Your task to perform on an android device: Open Amazon Image 0: 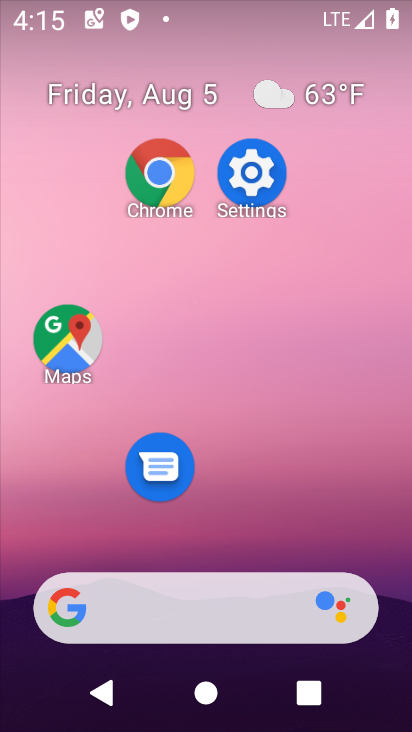
Step 0: click (159, 169)
Your task to perform on an android device: Open Amazon Image 1: 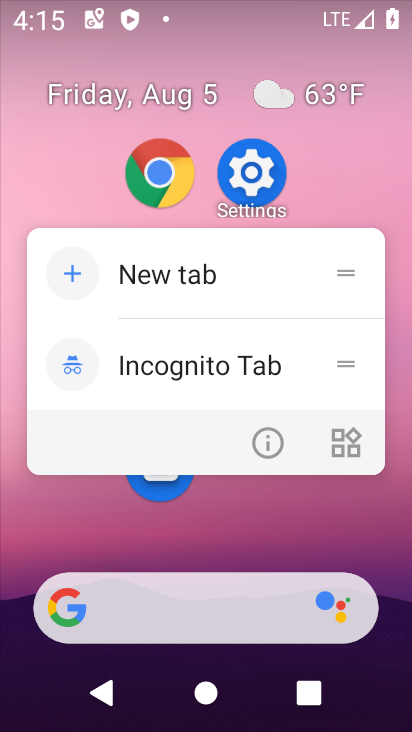
Step 1: click (171, 172)
Your task to perform on an android device: Open Amazon Image 2: 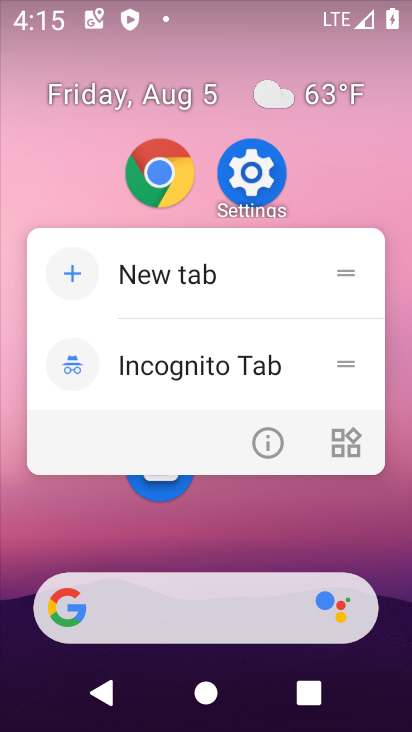
Step 2: click (301, 530)
Your task to perform on an android device: Open Amazon Image 3: 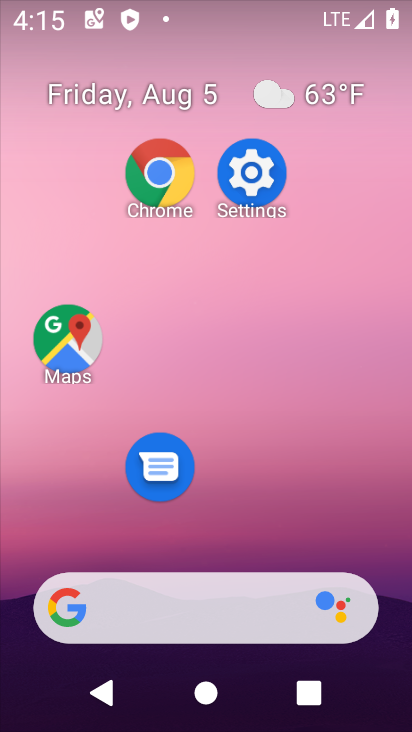
Step 3: drag from (301, 524) to (380, 47)
Your task to perform on an android device: Open Amazon Image 4: 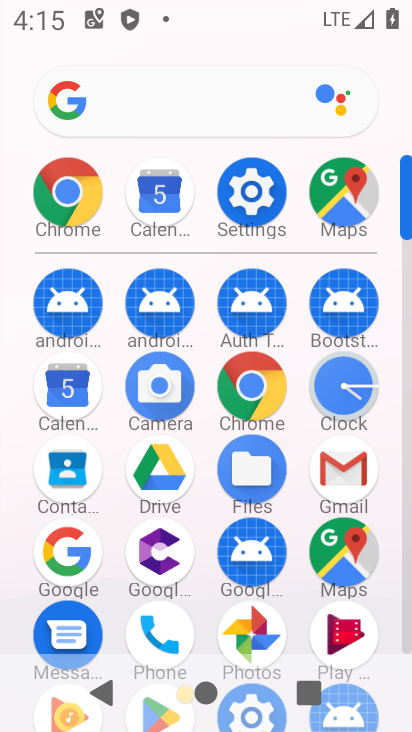
Step 4: click (237, 387)
Your task to perform on an android device: Open Amazon Image 5: 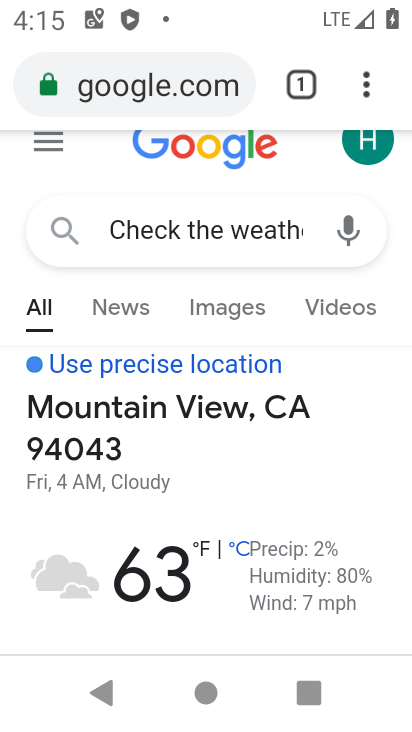
Step 5: click (137, 307)
Your task to perform on an android device: Open Amazon Image 6: 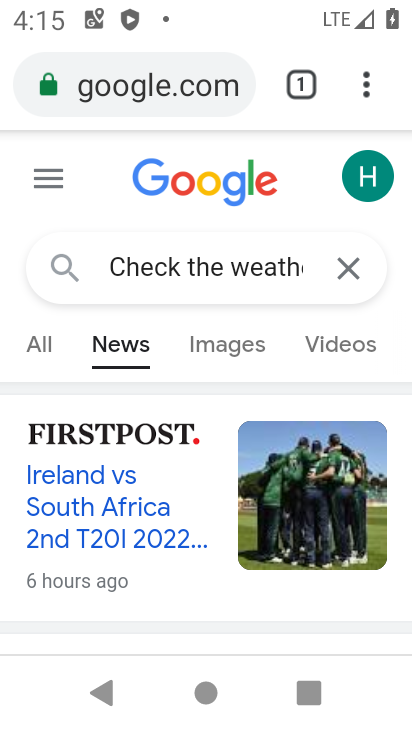
Step 6: task complete